Your task to perform on an android device: check storage Image 0: 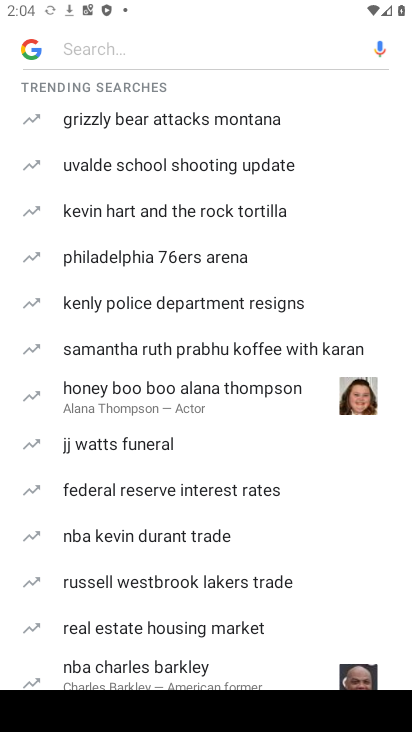
Step 0: press back button
Your task to perform on an android device: check storage Image 1: 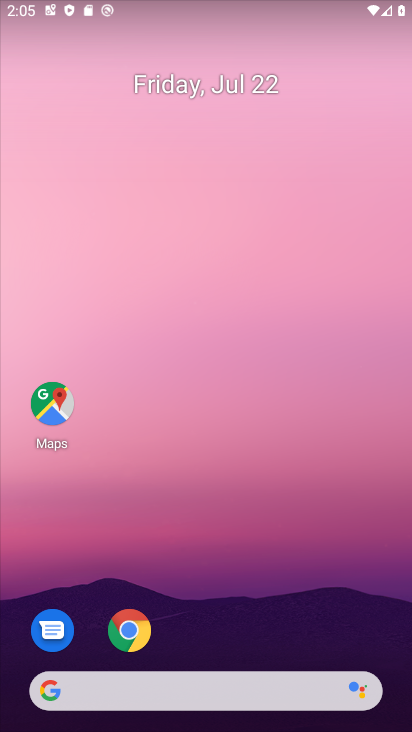
Step 1: drag from (222, 681) to (25, 407)
Your task to perform on an android device: check storage Image 2: 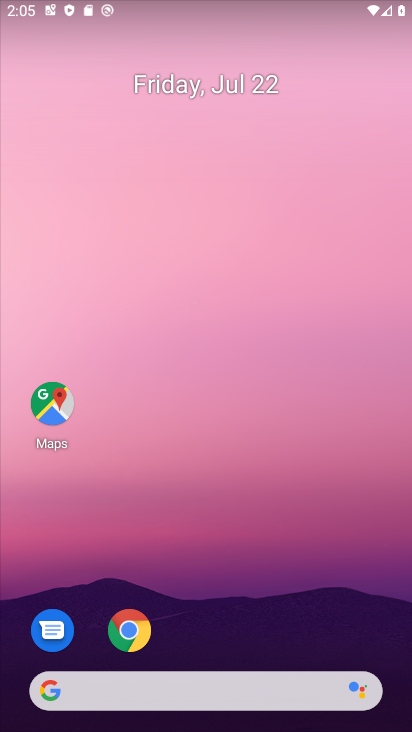
Step 2: click (188, 676)
Your task to perform on an android device: check storage Image 3: 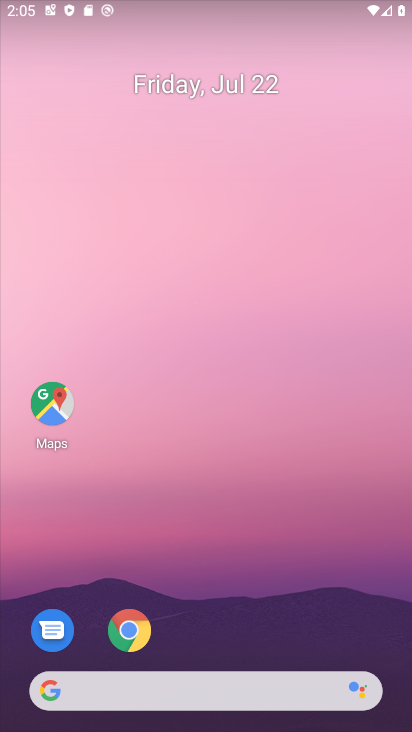
Step 3: drag from (215, 655) to (208, 8)
Your task to perform on an android device: check storage Image 4: 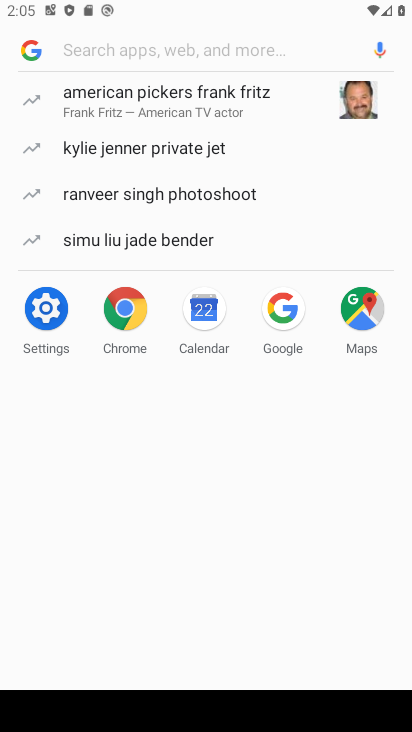
Step 4: press home button
Your task to perform on an android device: check storage Image 5: 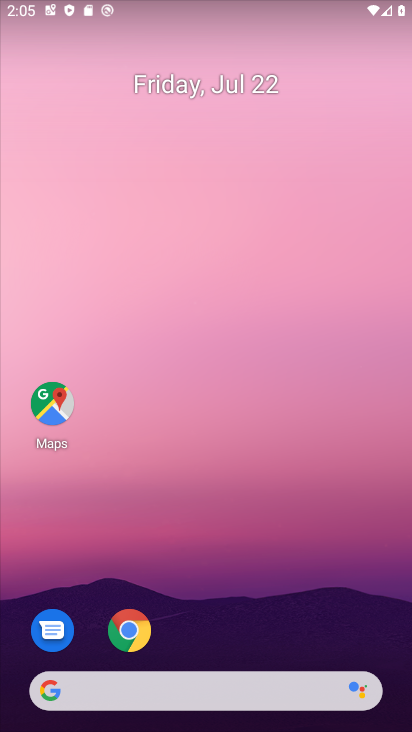
Step 5: drag from (204, 668) to (206, 72)
Your task to perform on an android device: check storage Image 6: 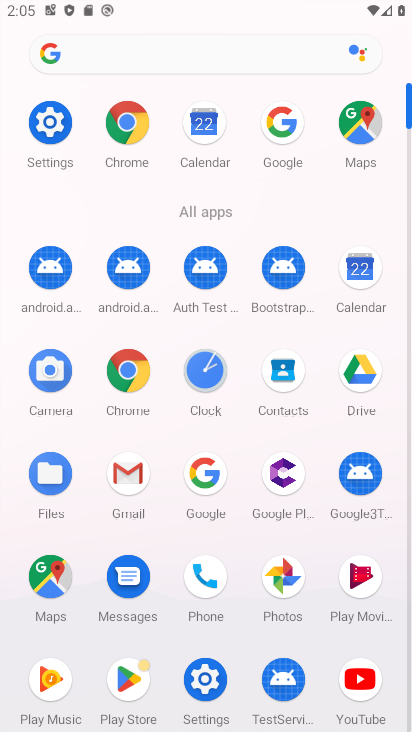
Step 6: click (204, 673)
Your task to perform on an android device: check storage Image 7: 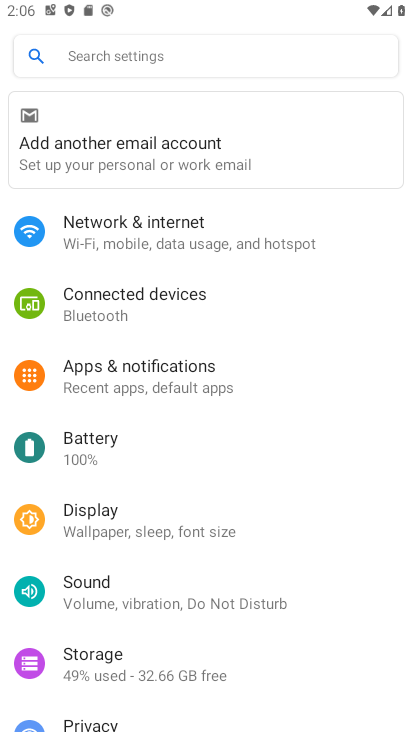
Step 7: drag from (131, 536) to (147, 243)
Your task to perform on an android device: check storage Image 8: 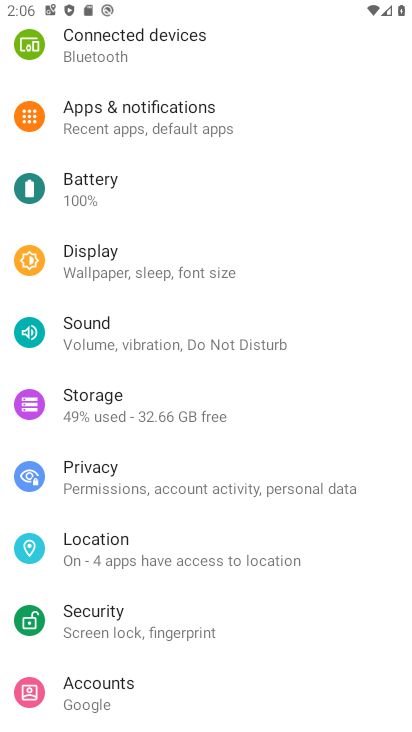
Step 8: click (133, 387)
Your task to perform on an android device: check storage Image 9: 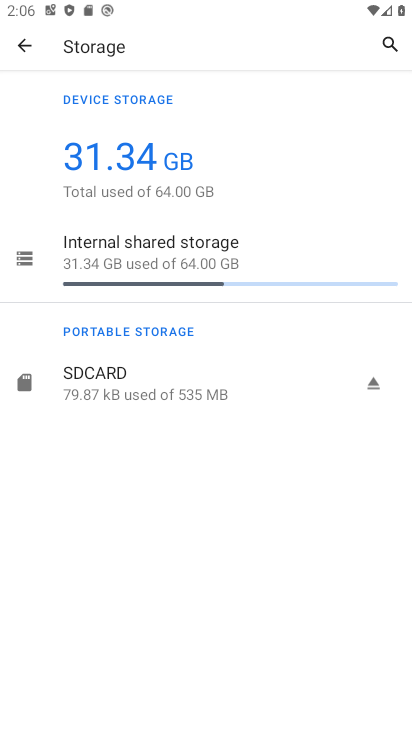
Step 9: click (174, 250)
Your task to perform on an android device: check storage Image 10: 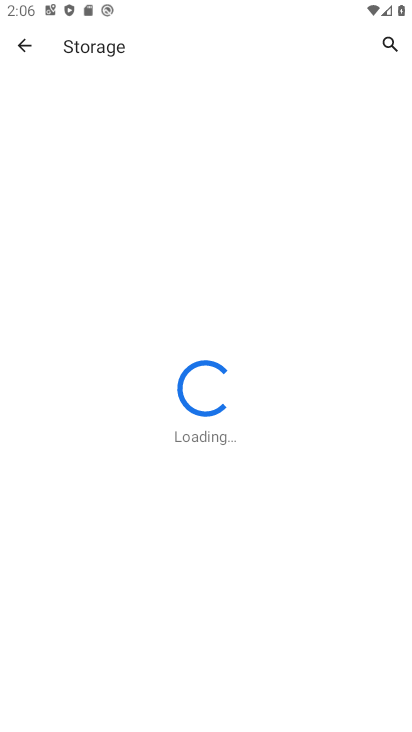
Step 10: task complete